Your task to perform on an android device: Open privacy settings Image 0: 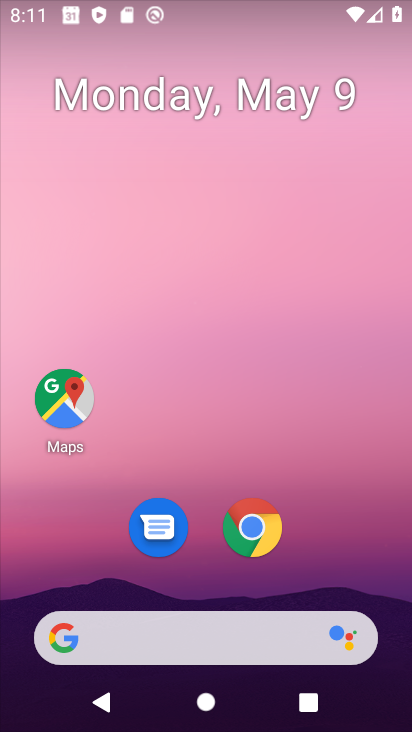
Step 0: drag from (223, 569) to (232, 113)
Your task to perform on an android device: Open privacy settings Image 1: 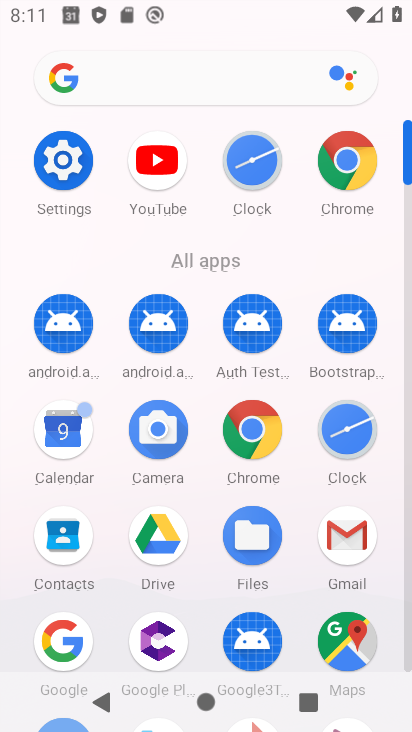
Step 1: click (58, 155)
Your task to perform on an android device: Open privacy settings Image 2: 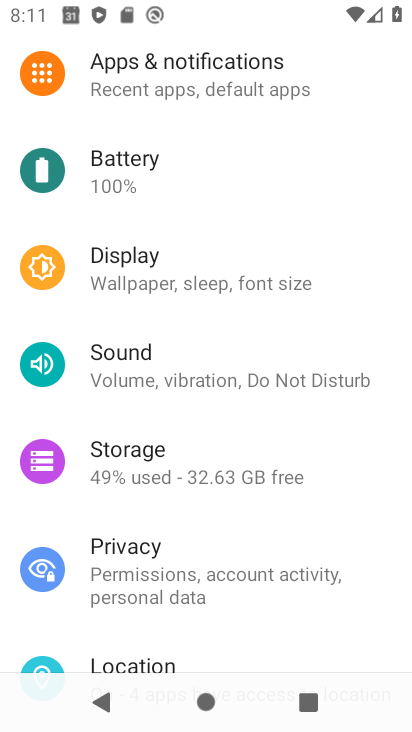
Step 2: click (154, 562)
Your task to perform on an android device: Open privacy settings Image 3: 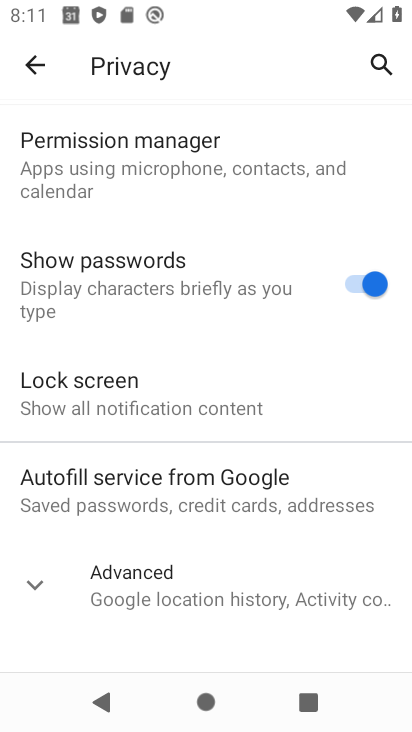
Step 3: click (31, 583)
Your task to perform on an android device: Open privacy settings Image 4: 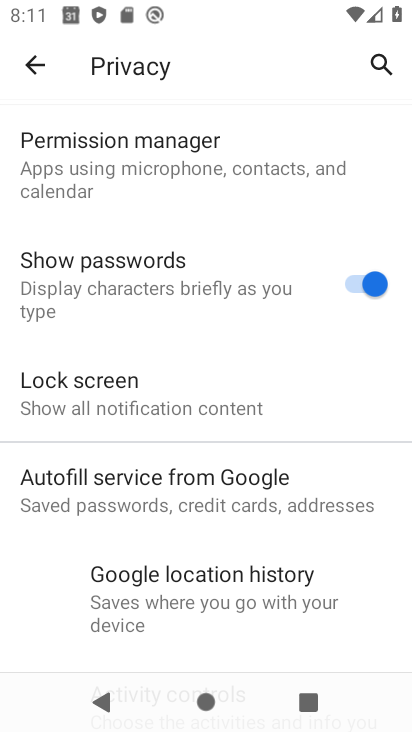
Step 4: task complete